Your task to perform on an android device: Go to privacy settings Image 0: 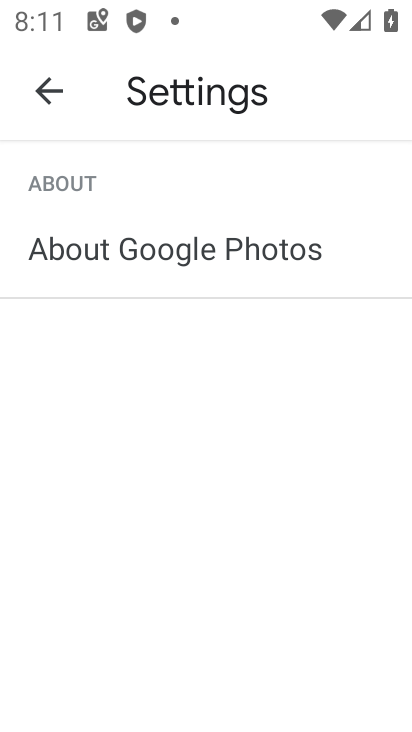
Step 0: press home button
Your task to perform on an android device: Go to privacy settings Image 1: 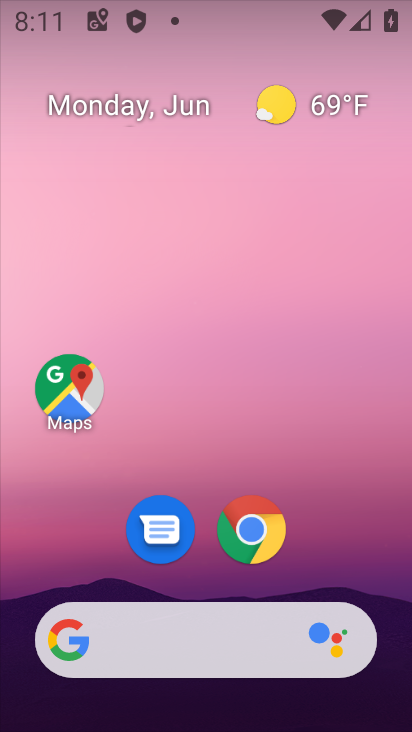
Step 1: click (319, 473)
Your task to perform on an android device: Go to privacy settings Image 2: 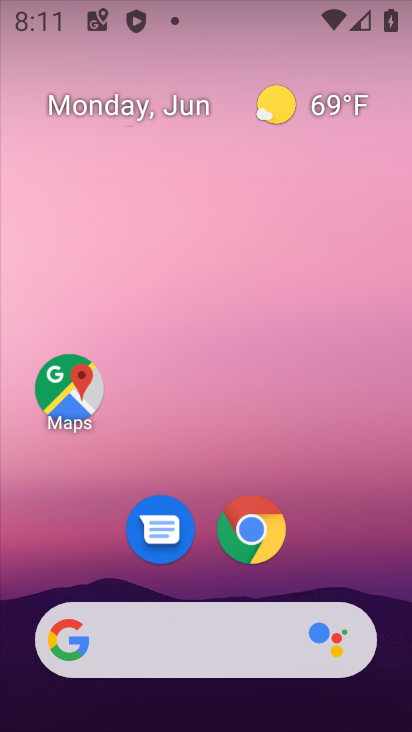
Step 2: drag from (359, 517) to (397, 26)
Your task to perform on an android device: Go to privacy settings Image 3: 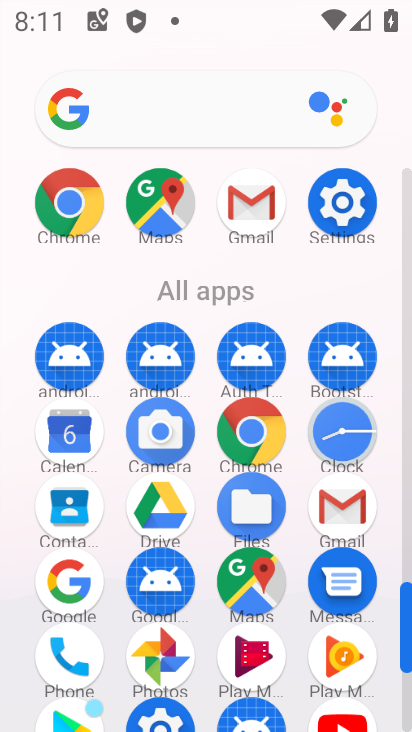
Step 3: click (337, 209)
Your task to perform on an android device: Go to privacy settings Image 4: 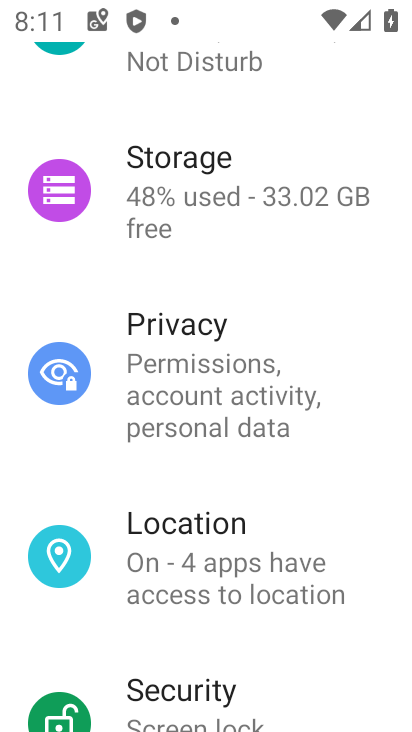
Step 4: click (222, 365)
Your task to perform on an android device: Go to privacy settings Image 5: 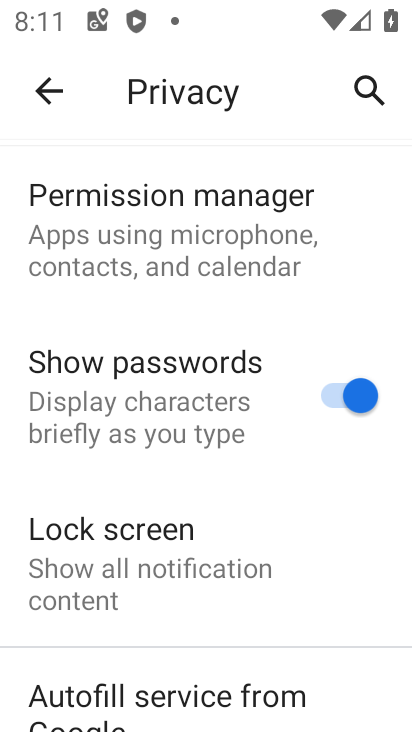
Step 5: task complete